Your task to perform on an android device: open app "Mercado Libre" Image 0: 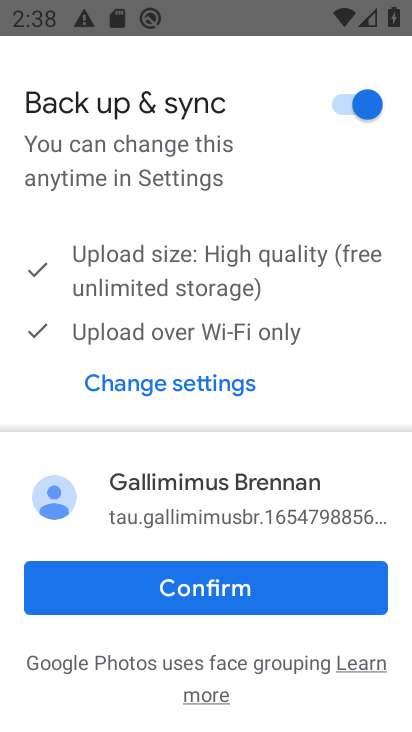
Step 0: press back button
Your task to perform on an android device: open app "Mercado Libre" Image 1: 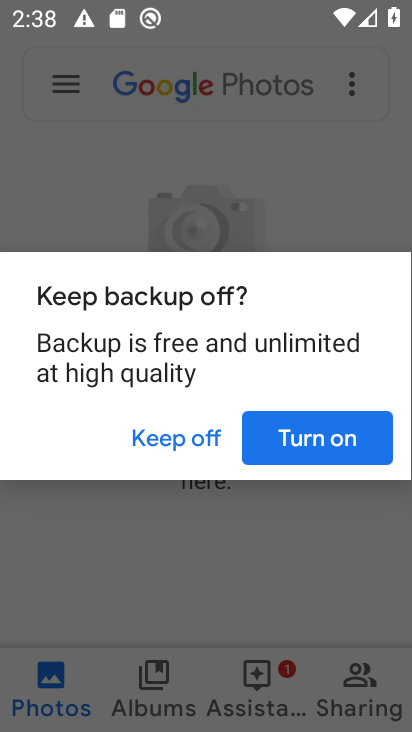
Step 1: click (181, 444)
Your task to perform on an android device: open app "Mercado Libre" Image 2: 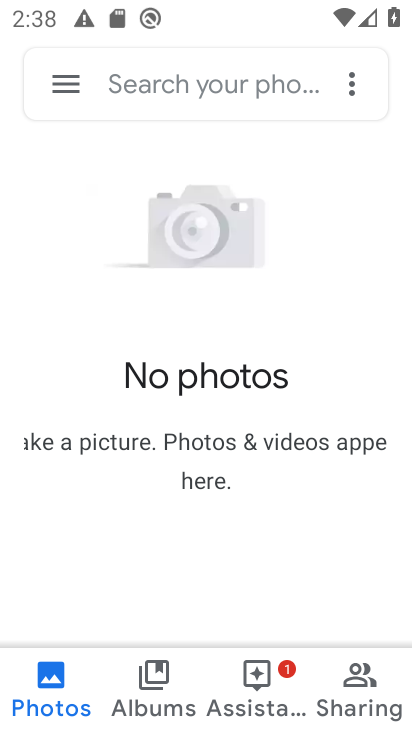
Step 2: press back button
Your task to perform on an android device: open app "Mercado Libre" Image 3: 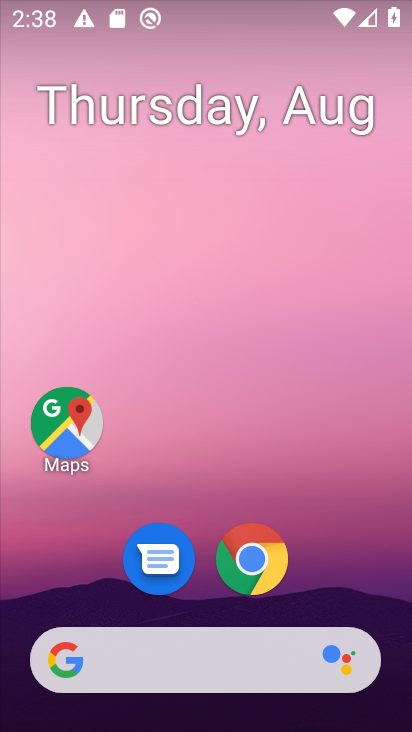
Step 3: drag from (209, 608) to (280, 103)
Your task to perform on an android device: open app "Mercado Libre" Image 4: 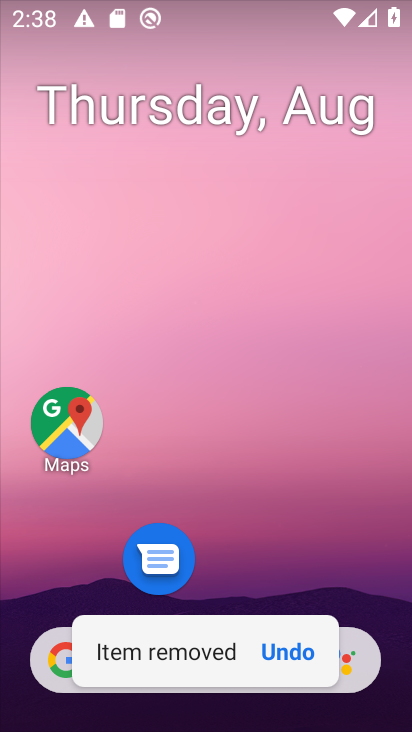
Step 4: drag from (239, 545) to (245, 101)
Your task to perform on an android device: open app "Mercado Libre" Image 5: 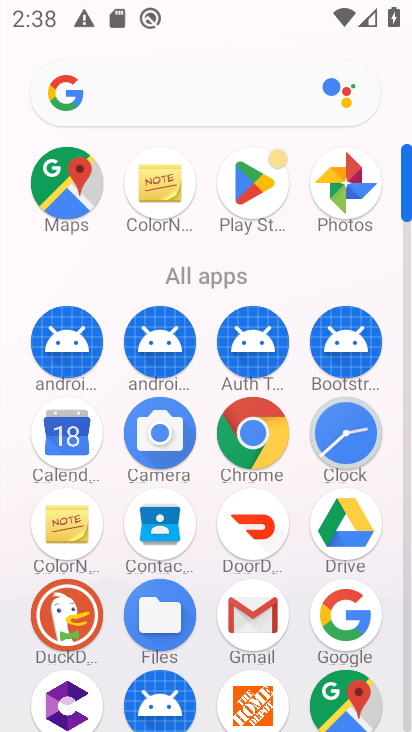
Step 5: click (256, 168)
Your task to perform on an android device: open app "Mercado Libre" Image 6: 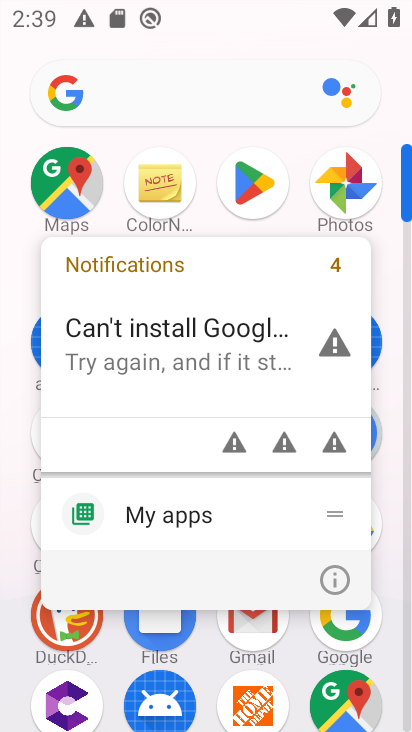
Step 6: click (259, 210)
Your task to perform on an android device: open app "Mercado Libre" Image 7: 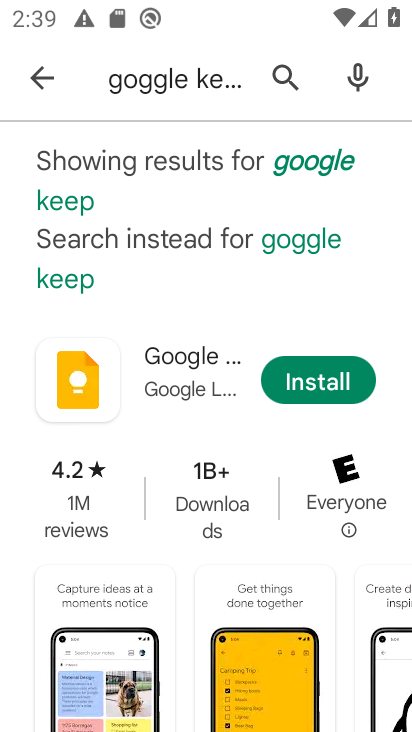
Step 7: click (294, 77)
Your task to perform on an android device: open app "Mercado Libre" Image 8: 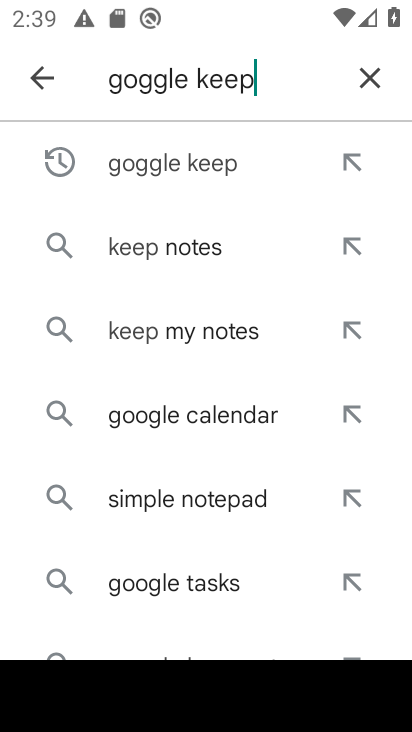
Step 8: click (369, 75)
Your task to perform on an android device: open app "Mercado Libre" Image 9: 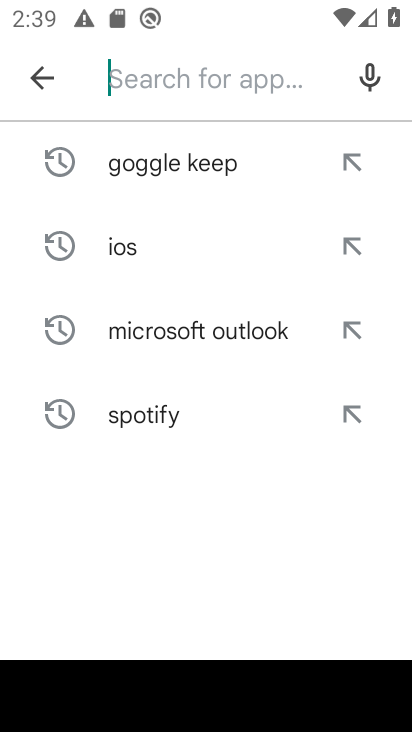
Step 9: type "mercado libre"
Your task to perform on an android device: open app "Mercado Libre" Image 10: 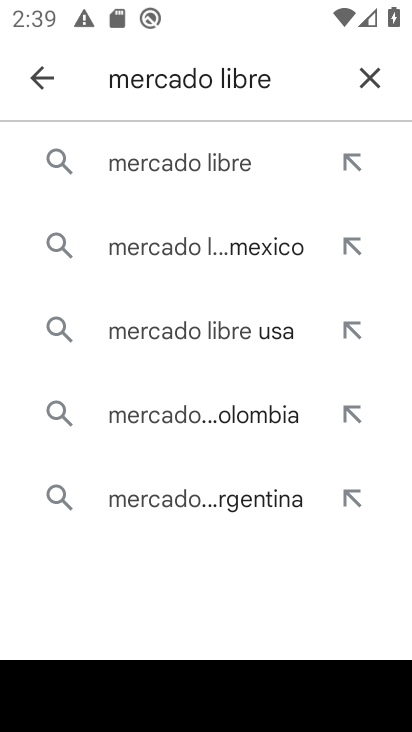
Step 10: click (184, 161)
Your task to perform on an android device: open app "Mercado Libre" Image 11: 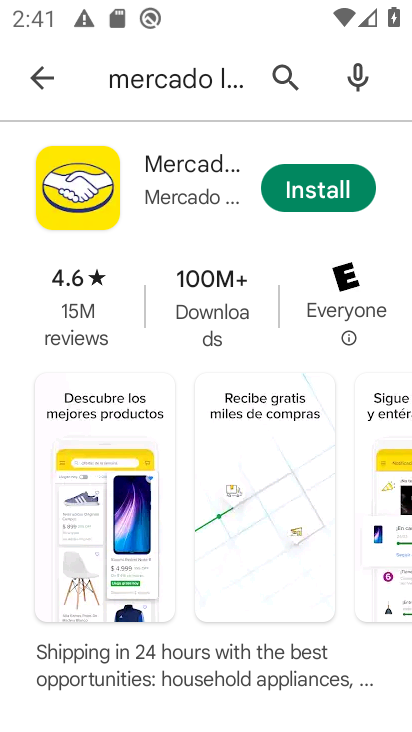
Step 11: task complete